Your task to perform on an android device: Open calendar and show me the second week of next month Image 0: 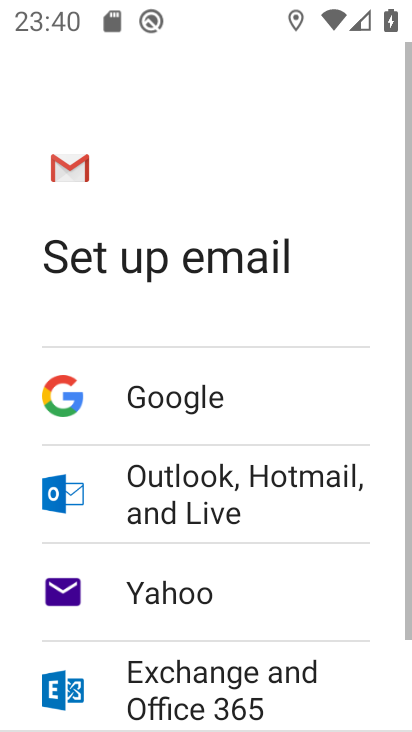
Step 0: press home button
Your task to perform on an android device: Open calendar and show me the second week of next month Image 1: 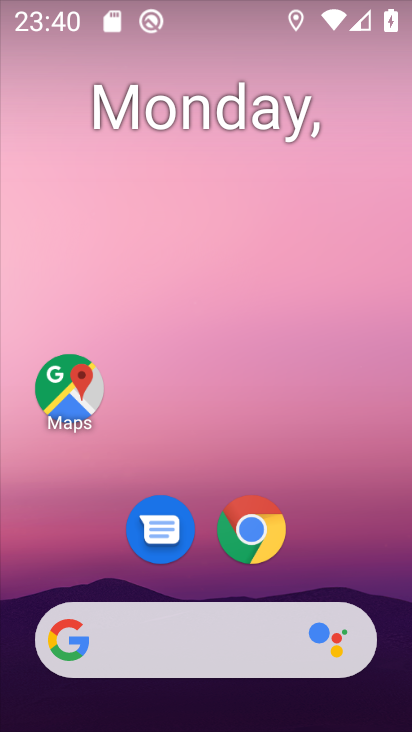
Step 1: click (212, 94)
Your task to perform on an android device: Open calendar and show me the second week of next month Image 2: 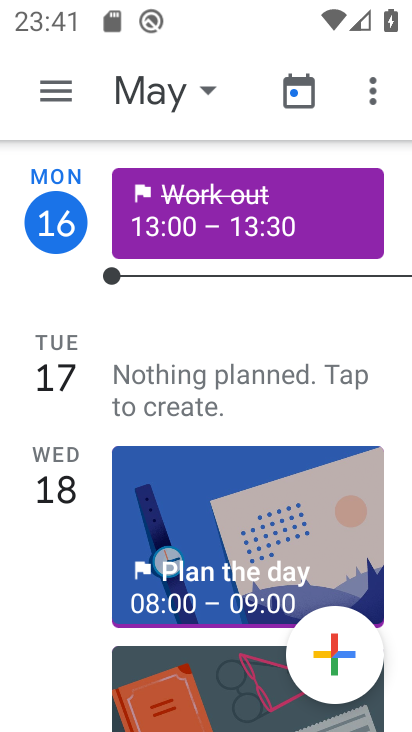
Step 2: click (53, 86)
Your task to perform on an android device: Open calendar and show me the second week of next month Image 3: 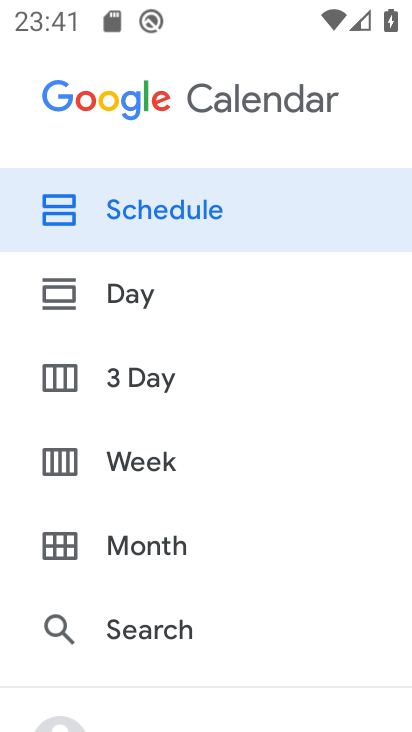
Step 3: click (148, 459)
Your task to perform on an android device: Open calendar and show me the second week of next month Image 4: 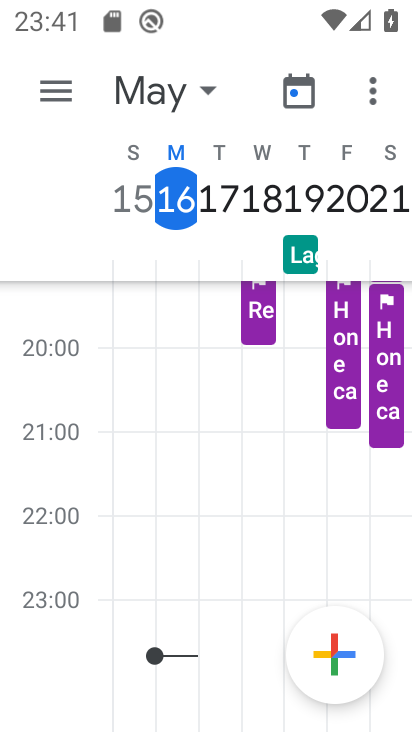
Step 4: click (159, 92)
Your task to perform on an android device: Open calendar and show me the second week of next month Image 5: 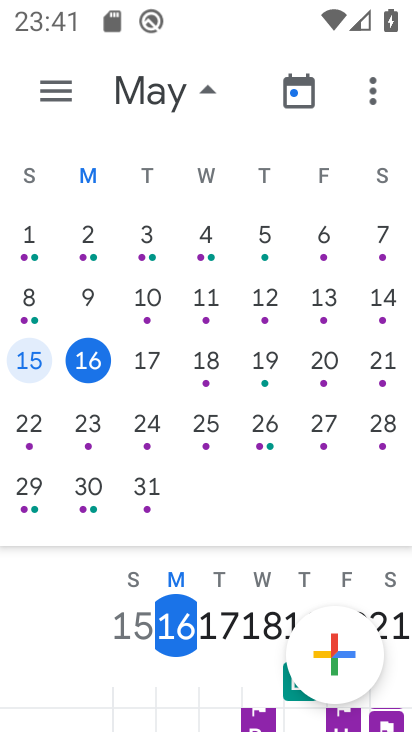
Step 5: drag from (358, 473) to (74, 434)
Your task to perform on an android device: Open calendar and show me the second week of next month Image 6: 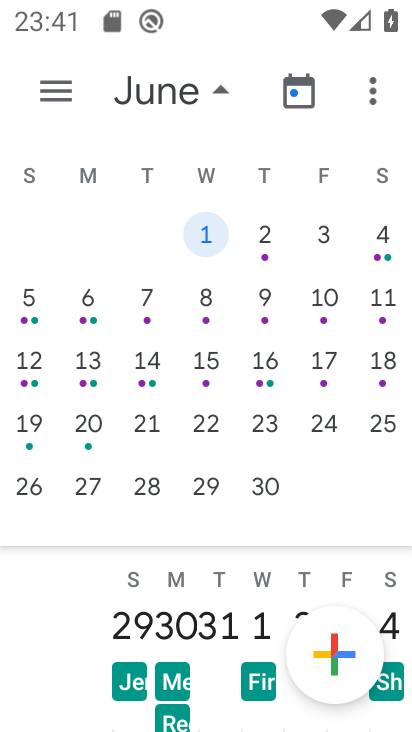
Step 6: click (144, 295)
Your task to perform on an android device: Open calendar and show me the second week of next month Image 7: 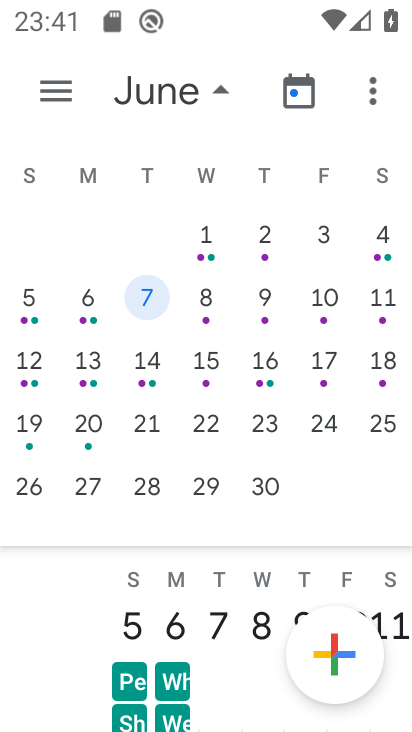
Step 7: task complete